Your task to perform on an android device: Show me productivity apps on the Play Store Image 0: 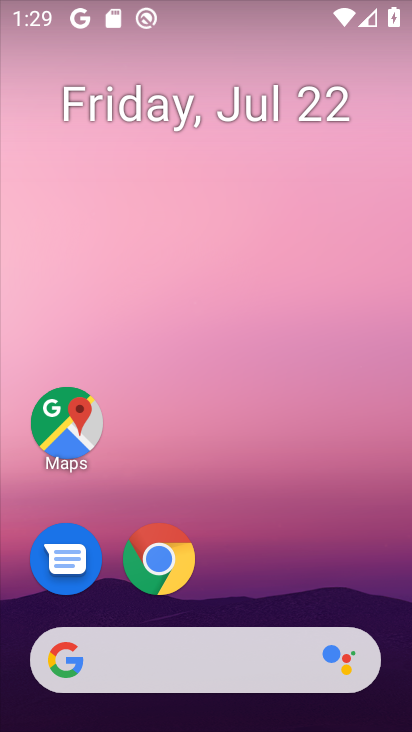
Step 0: drag from (240, 537) to (289, 6)
Your task to perform on an android device: Show me productivity apps on the Play Store Image 1: 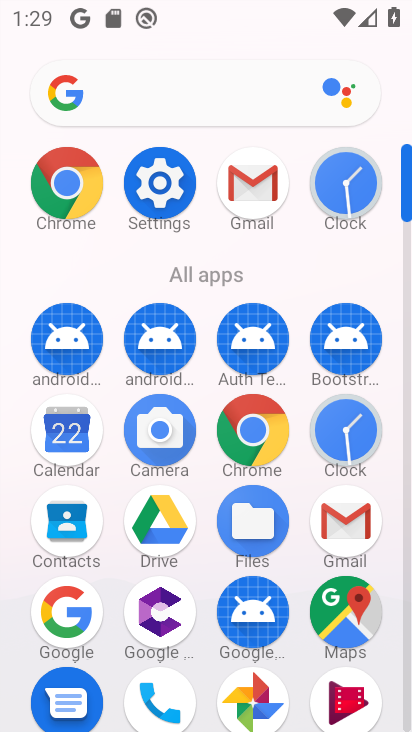
Step 1: drag from (176, 591) to (233, 109)
Your task to perform on an android device: Show me productivity apps on the Play Store Image 2: 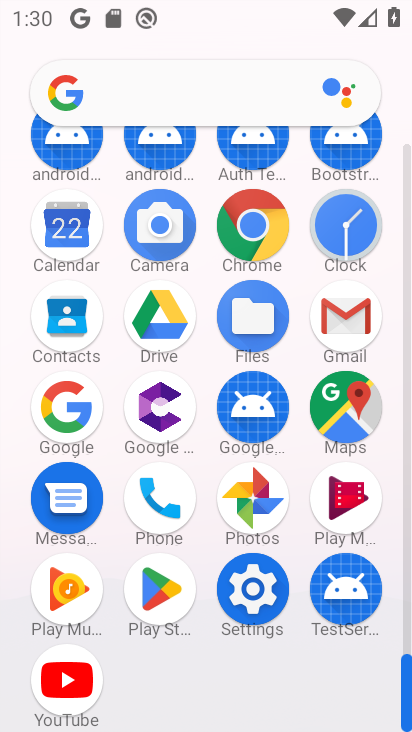
Step 2: click (159, 593)
Your task to perform on an android device: Show me productivity apps on the Play Store Image 3: 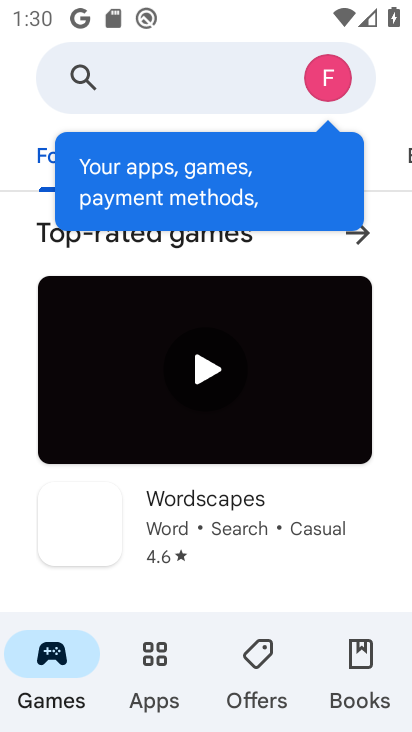
Step 3: click (154, 661)
Your task to perform on an android device: Show me productivity apps on the Play Store Image 4: 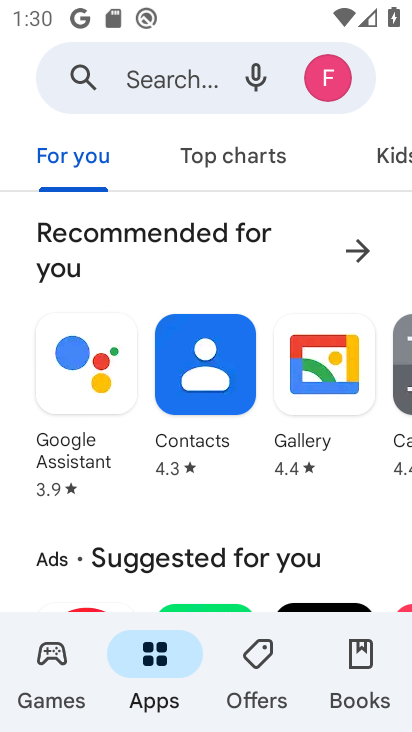
Step 4: drag from (163, 461) to (219, 108)
Your task to perform on an android device: Show me productivity apps on the Play Store Image 5: 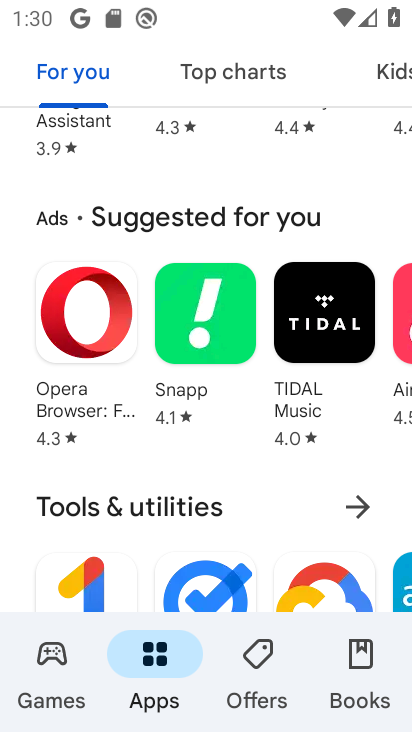
Step 5: drag from (207, 558) to (324, 94)
Your task to perform on an android device: Show me productivity apps on the Play Store Image 6: 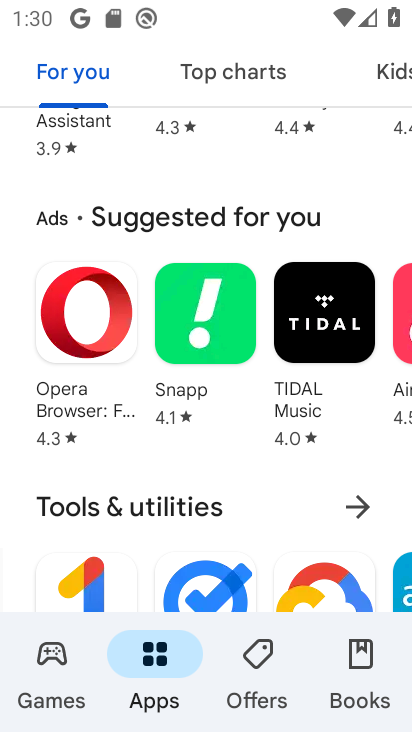
Step 6: drag from (165, 531) to (250, 132)
Your task to perform on an android device: Show me productivity apps on the Play Store Image 7: 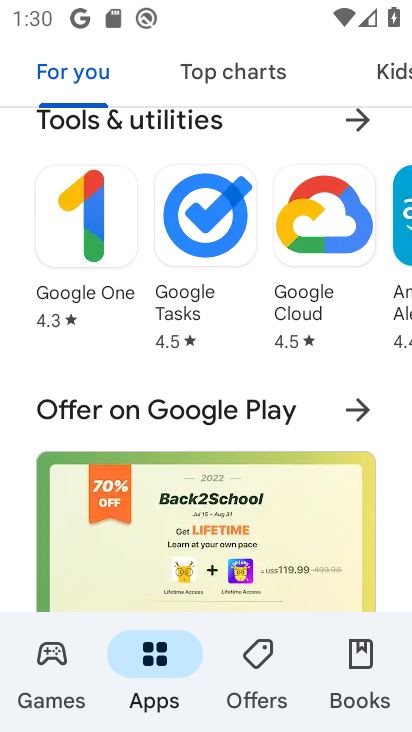
Step 7: drag from (186, 569) to (322, 58)
Your task to perform on an android device: Show me productivity apps on the Play Store Image 8: 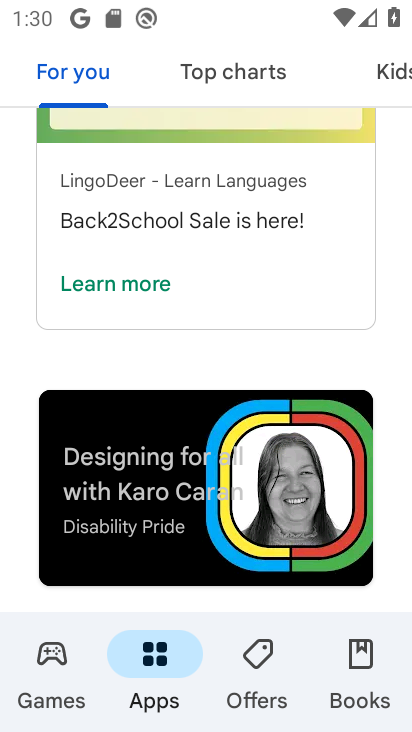
Step 8: drag from (202, 559) to (302, 67)
Your task to perform on an android device: Show me productivity apps on the Play Store Image 9: 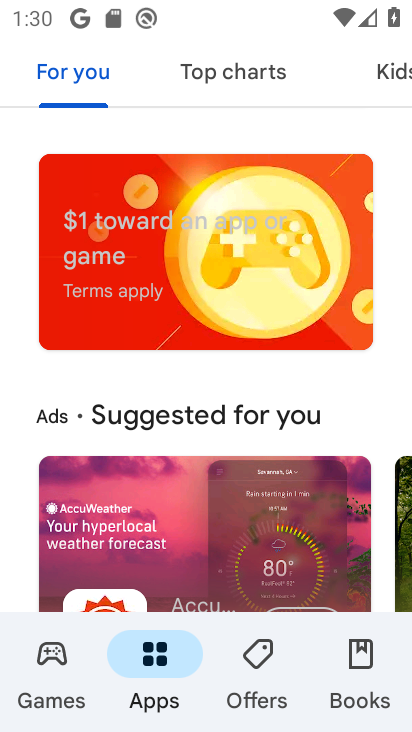
Step 9: drag from (194, 548) to (259, 118)
Your task to perform on an android device: Show me productivity apps on the Play Store Image 10: 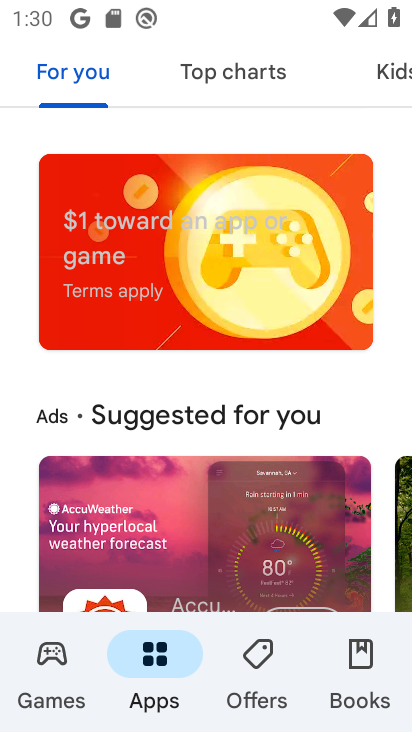
Step 10: drag from (215, 474) to (261, 89)
Your task to perform on an android device: Show me productivity apps on the Play Store Image 11: 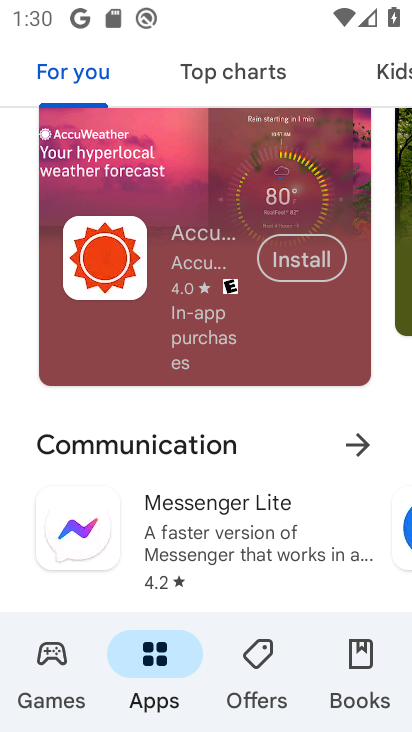
Step 11: drag from (21, 568) to (90, 64)
Your task to perform on an android device: Show me productivity apps on the Play Store Image 12: 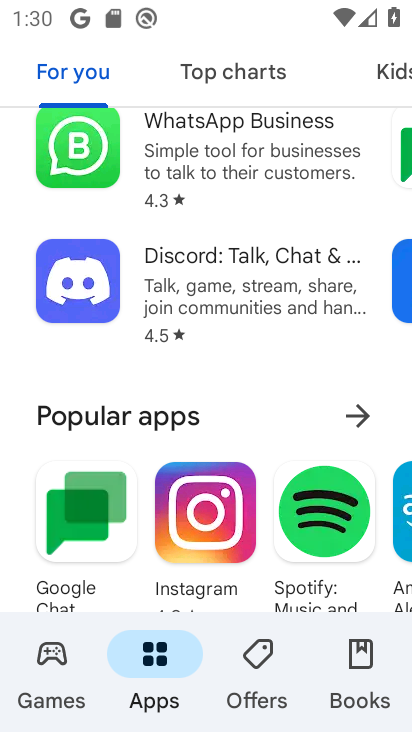
Step 12: drag from (21, 578) to (102, 37)
Your task to perform on an android device: Show me productivity apps on the Play Store Image 13: 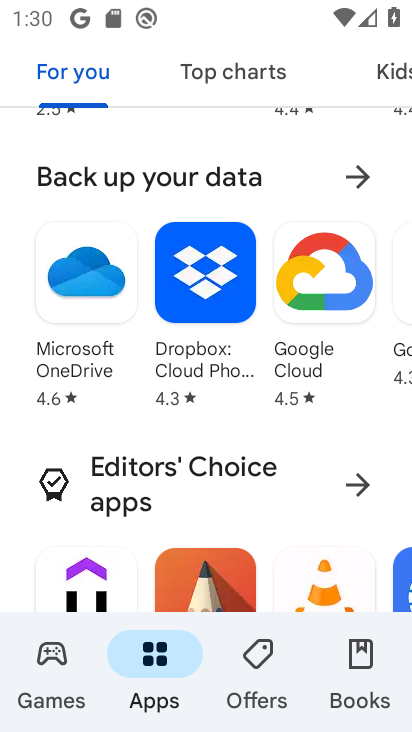
Step 13: drag from (8, 604) to (58, 100)
Your task to perform on an android device: Show me productivity apps on the Play Store Image 14: 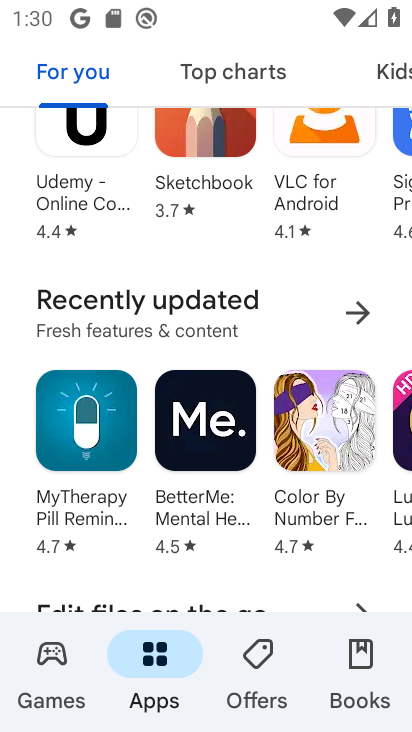
Step 14: drag from (28, 559) to (26, 44)
Your task to perform on an android device: Show me productivity apps on the Play Store Image 15: 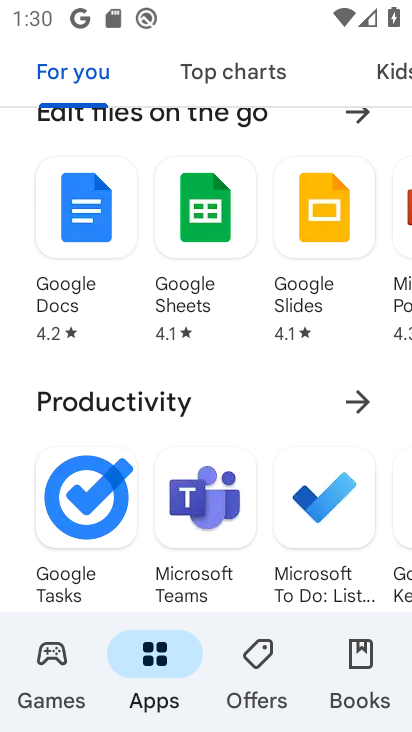
Step 15: click (354, 395)
Your task to perform on an android device: Show me productivity apps on the Play Store Image 16: 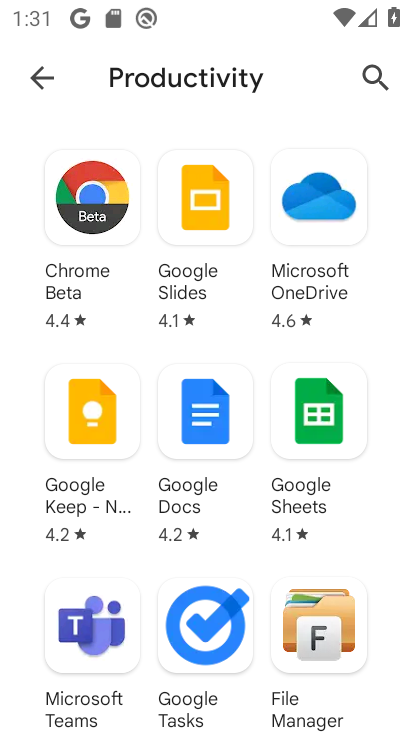
Step 16: task complete